Your task to perform on an android device: star an email in the gmail app Image 0: 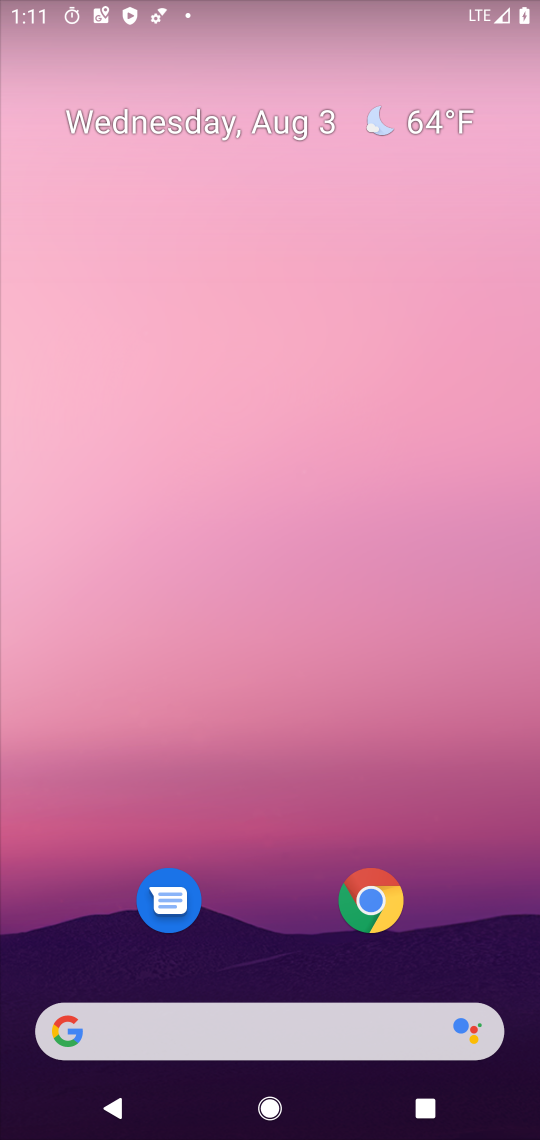
Step 0: drag from (262, 951) to (335, 142)
Your task to perform on an android device: star an email in the gmail app Image 1: 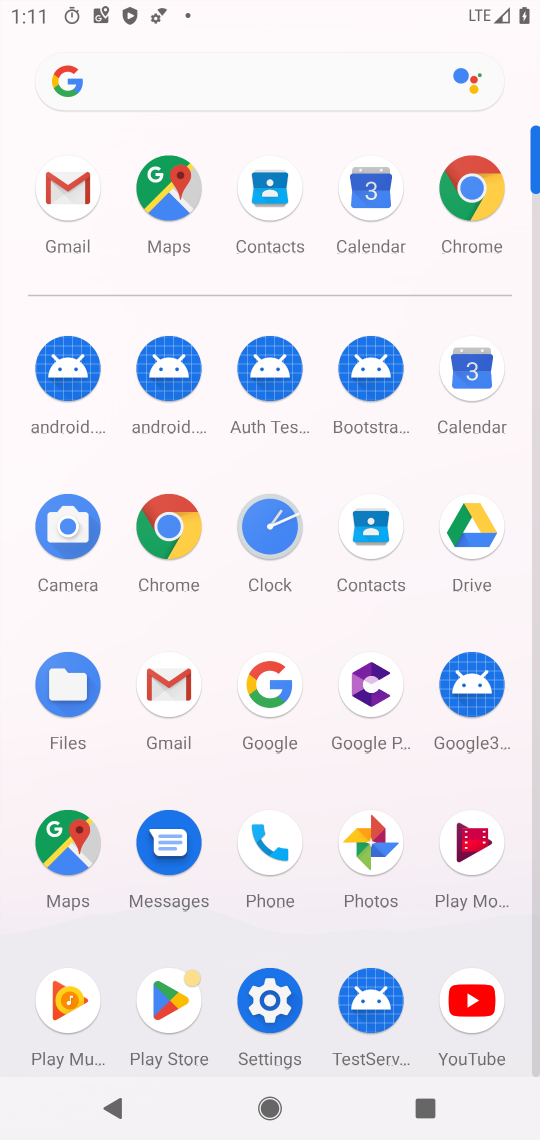
Step 1: click (156, 696)
Your task to perform on an android device: star an email in the gmail app Image 2: 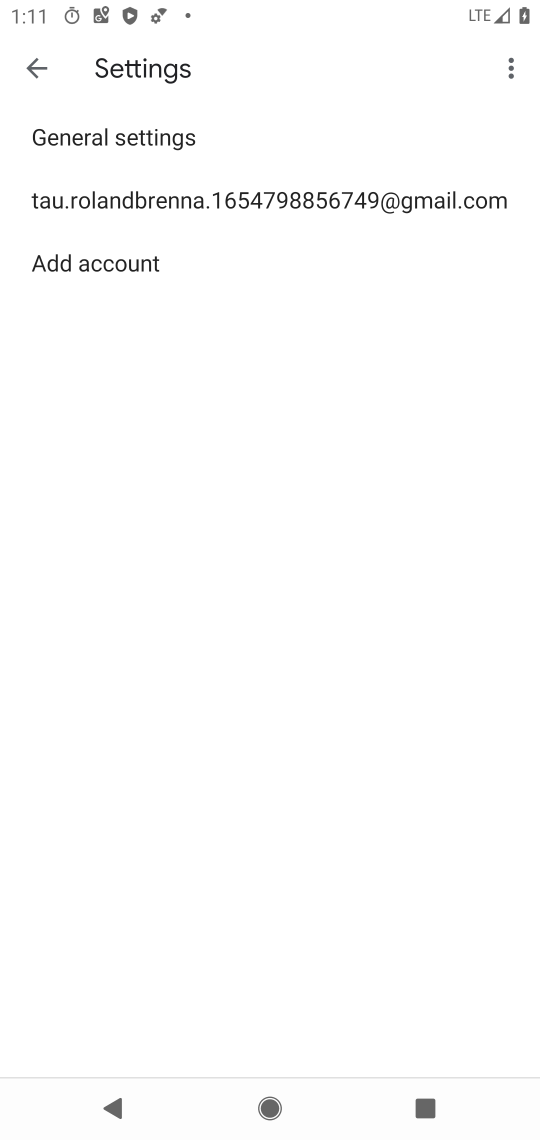
Step 2: click (38, 49)
Your task to perform on an android device: star an email in the gmail app Image 3: 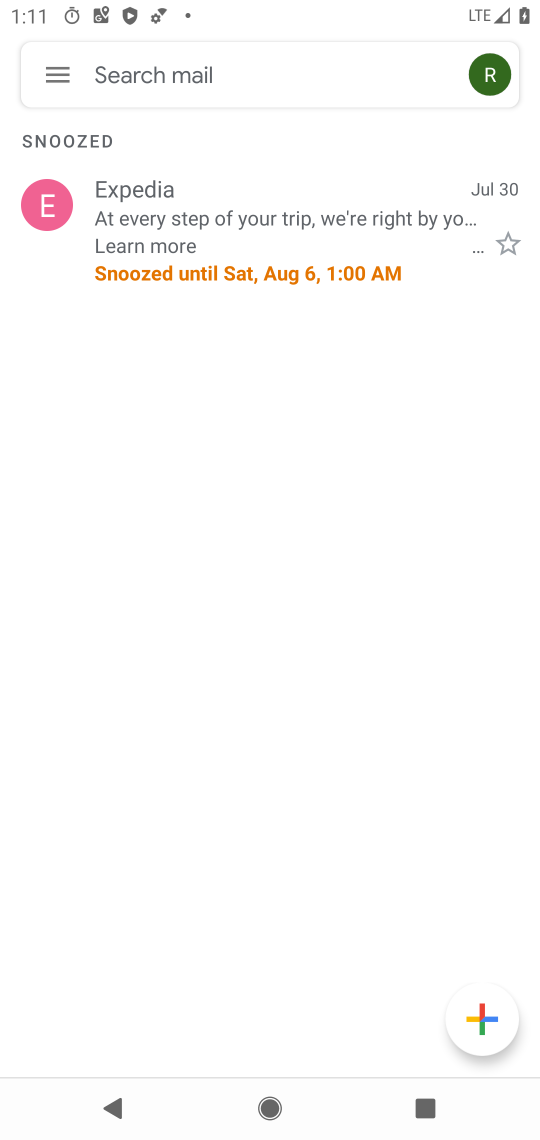
Step 3: click (511, 246)
Your task to perform on an android device: star an email in the gmail app Image 4: 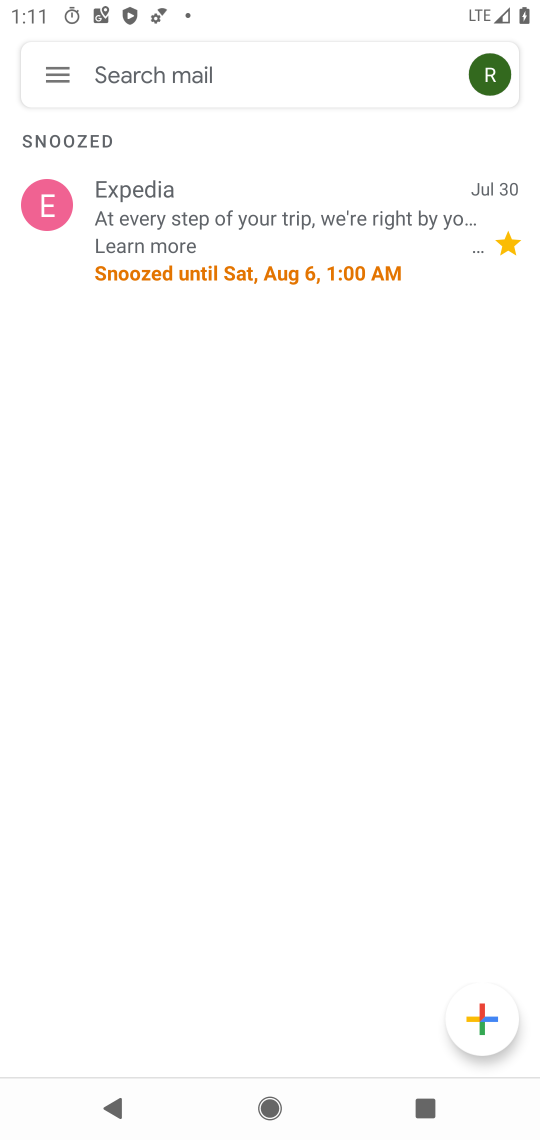
Step 4: task complete